Your task to perform on an android device: delete location history Image 0: 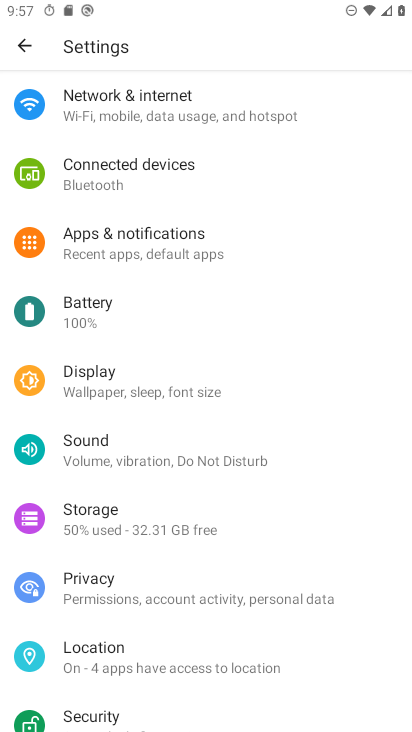
Step 0: click (122, 663)
Your task to perform on an android device: delete location history Image 1: 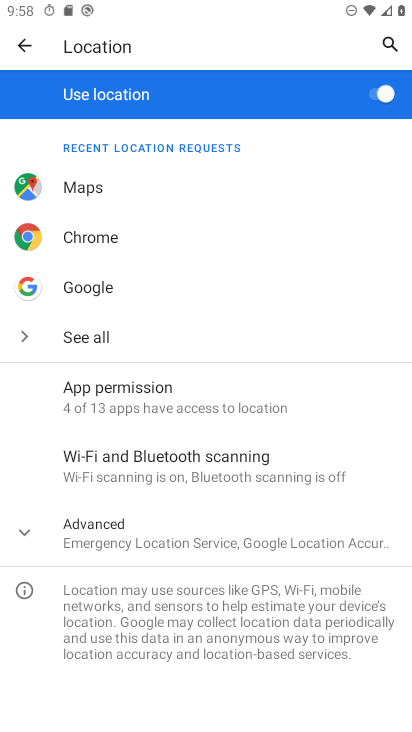
Step 1: click (185, 527)
Your task to perform on an android device: delete location history Image 2: 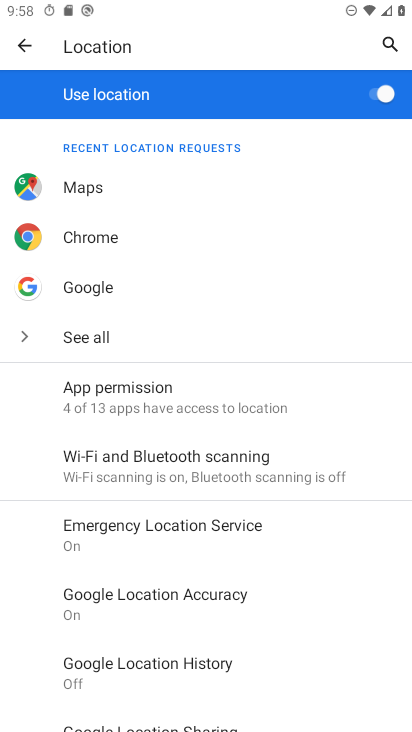
Step 2: click (203, 664)
Your task to perform on an android device: delete location history Image 3: 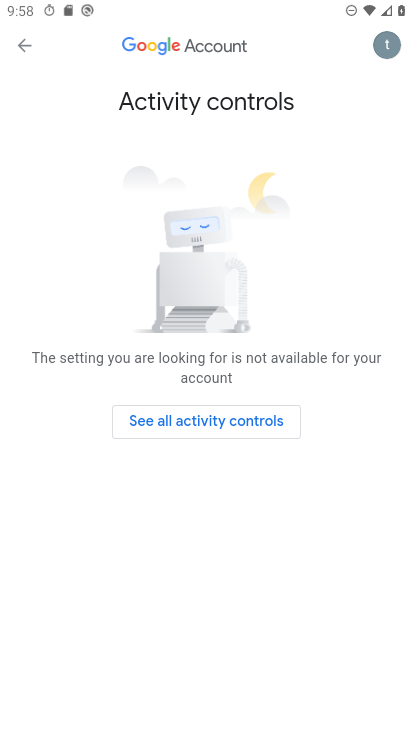
Step 3: task complete